Your task to perform on an android device: set the stopwatch Image 0: 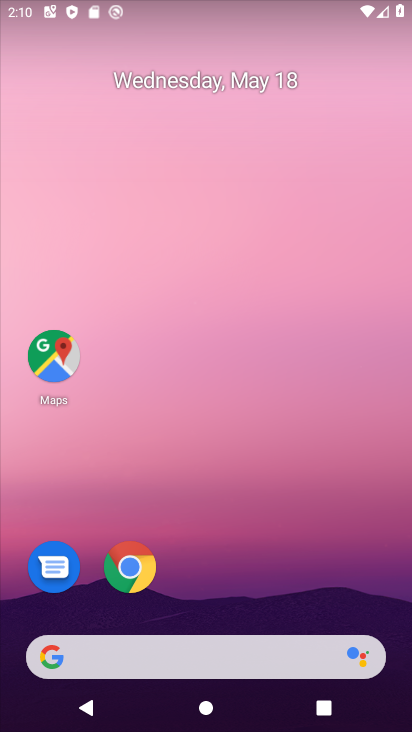
Step 0: drag from (225, 604) to (251, 125)
Your task to perform on an android device: set the stopwatch Image 1: 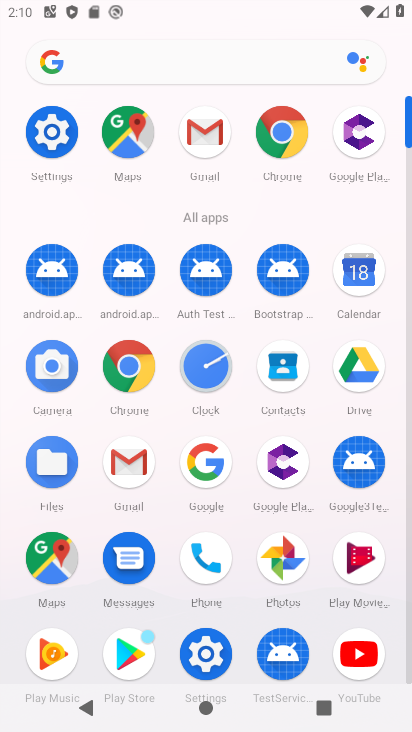
Step 1: click (198, 367)
Your task to perform on an android device: set the stopwatch Image 2: 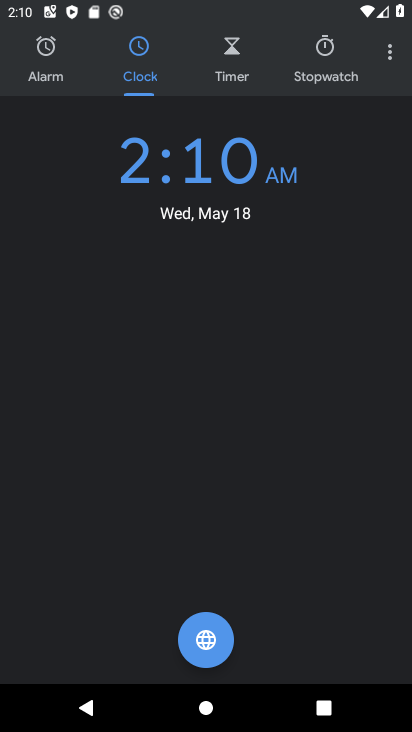
Step 2: click (303, 71)
Your task to perform on an android device: set the stopwatch Image 3: 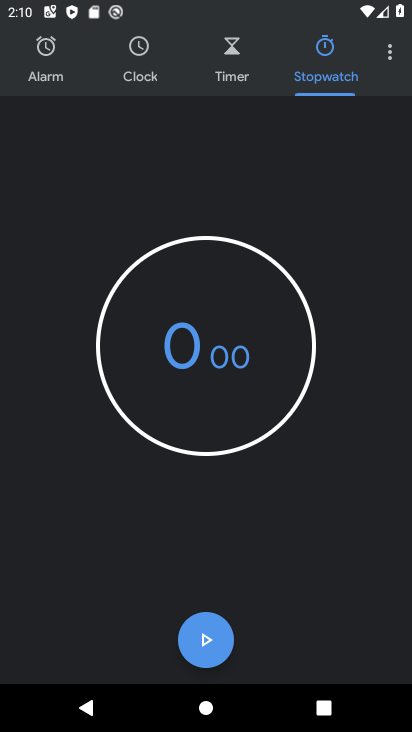
Step 3: click (196, 635)
Your task to perform on an android device: set the stopwatch Image 4: 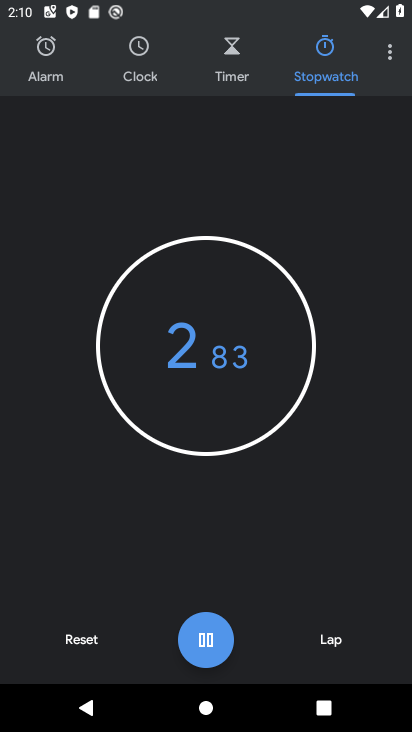
Step 4: task complete